Your task to perform on an android device: Search for flights from Helsinki to Tokyo Image 0: 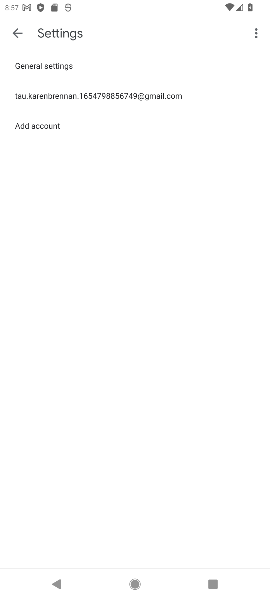
Step 0: press home button
Your task to perform on an android device: Search for flights from Helsinki to Tokyo Image 1: 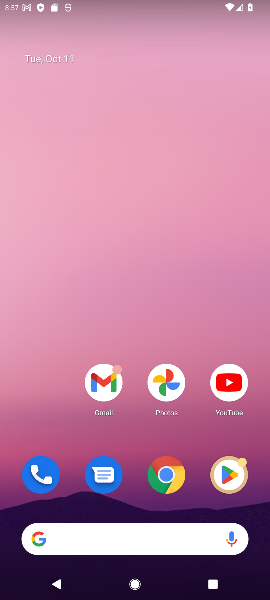
Step 1: click (174, 490)
Your task to perform on an android device: Search for flights from Helsinki to Tokyo Image 2: 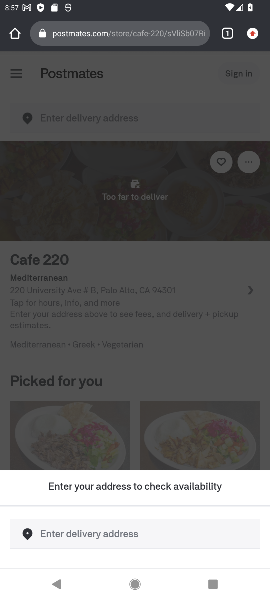
Step 2: click (123, 27)
Your task to perform on an android device: Search for flights from Helsinki to Tokyo Image 3: 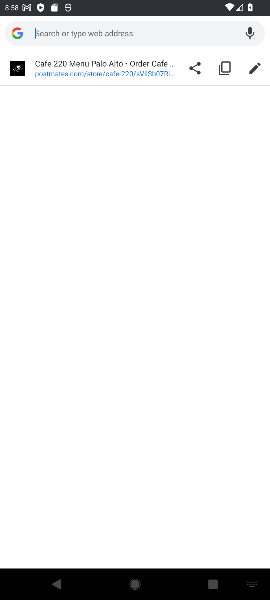
Step 3: type "flights from Helsinki to Tokyo"
Your task to perform on an android device: Search for flights from Helsinki to Tokyo Image 4: 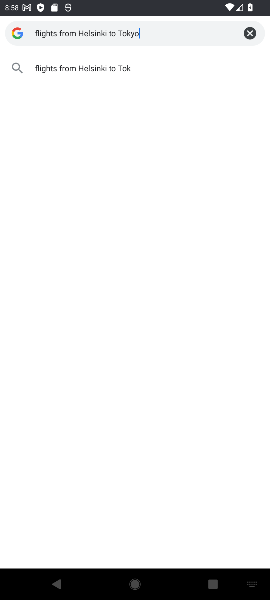
Step 4: type ""
Your task to perform on an android device: Search for flights from Helsinki to Tokyo Image 5: 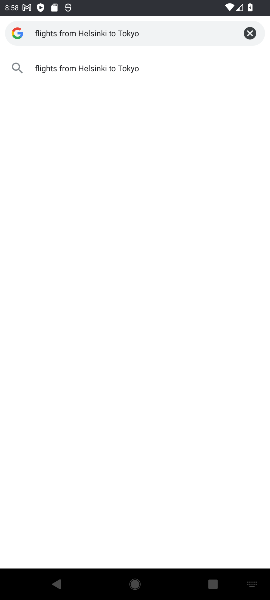
Step 5: press enter
Your task to perform on an android device: Search for flights from Helsinki to Tokyo Image 6: 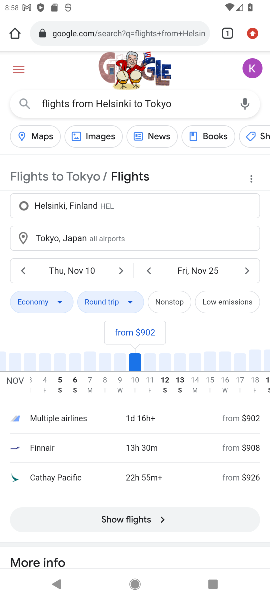
Step 6: click (122, 511)
Your task to perform on an android device: Search for flights from Helsinki to Tokyo Image 7: 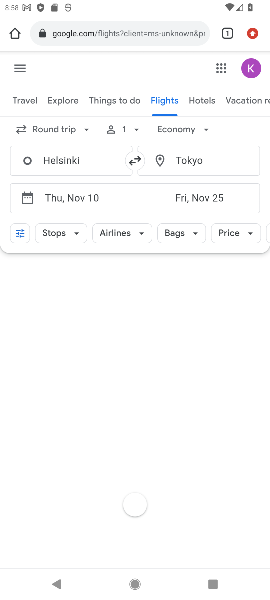
Step 7: drag from (122, 510) to (144, 133)
Your task to perform on an android device: Search for flights from Helsinki to Tokyo Image 8: 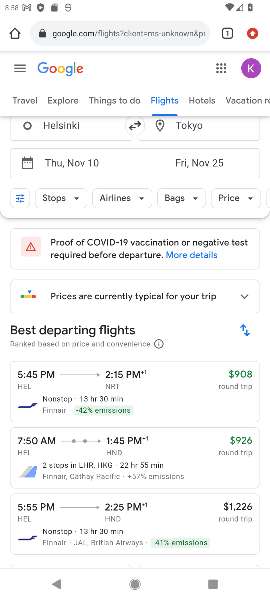
Step 8: drag from (152, 395) to (200, 122)
Your task to perform on an android device: Search for flights from Helsinki to Tokyo Image 9: 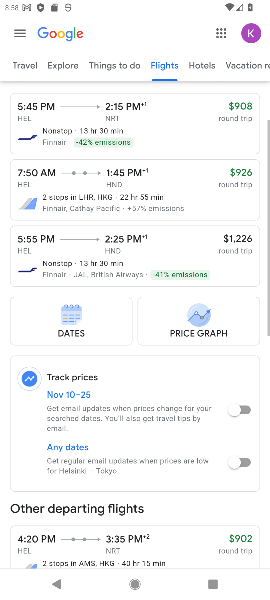
Step 9: drag from (165, 416) to (199, 138)
Your task to perform on an android device: Search for flights from Helsinki to Tokyo Image 10: 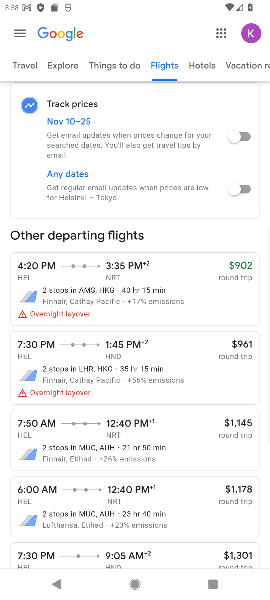
Step 10: drag from (180, 430) to (181, 107)
Your task to perform on an android device: Search for flights from Helsinki to Tokyo Image 11: 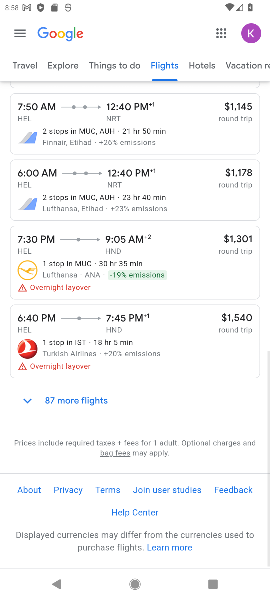
Step 11: drag from (149, 376) to (164, 135)
Your task to perform on an android device: Search for flights from Helsinki to Tokyo Image 12: 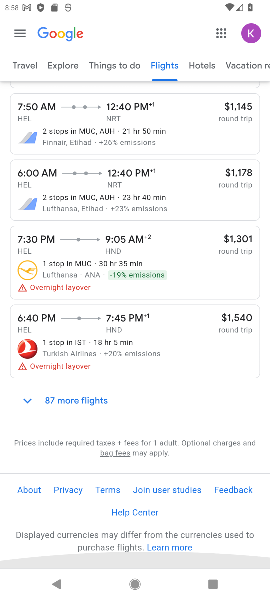
Step 12: drag from (142, 413) to (142, 249)
Your task to perform on an android device: Search for flights from Helsinki to Tokyo Image 13: 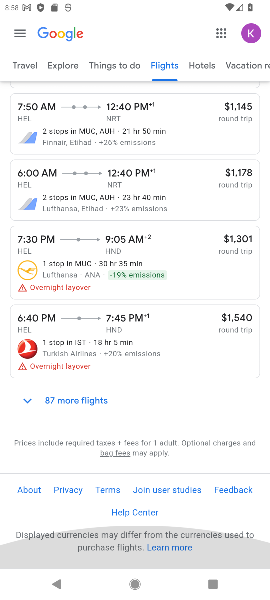
Step 13: drag from (145, 166) to (144, 419)
Your task to perform on an android device: Search for flights from Helsinki to Tokyo Image 14: 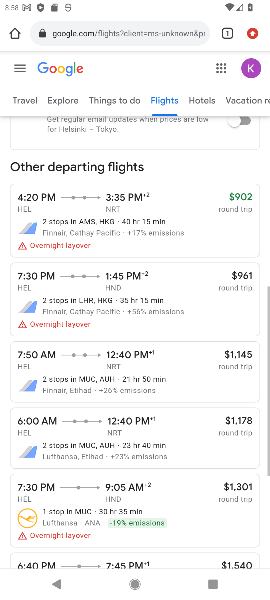
Step 14: drag from (180, 150) to (146, 367)
Your task to perform on an android device: Search for flights from Helsinki to Tokyo Image 15: 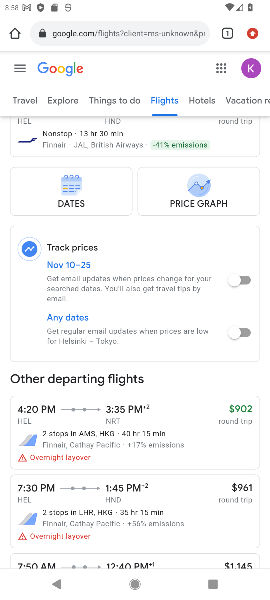
Step 15: drag from (149, 192) to (150, 418)
Your task to perform on an android device: Search for flights from Helsinki to Tokyo Image 16: 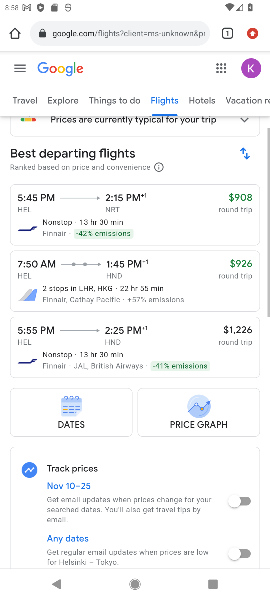
Step 16: drag from (147, 192) to (147, 395)
Your task to perform on an android device: Search for flights from Helsinki to Tokyo Image 17: 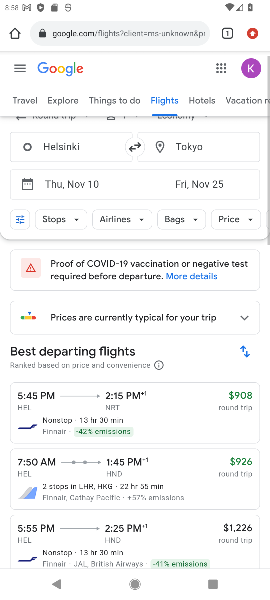
Step 17: drag from (147, 214) to (139, 422)
Your task to perform on an android device: Search for flights from Helsinki to Tokyo Image 18: 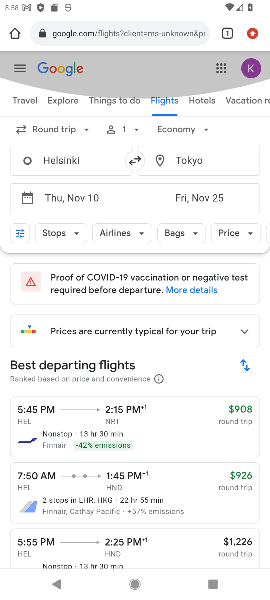
Step 18: drag from (152, 282) to (144, 377)
Your task to perform on an android device: Search for flights from Helsinki to Tokyo Image 19: 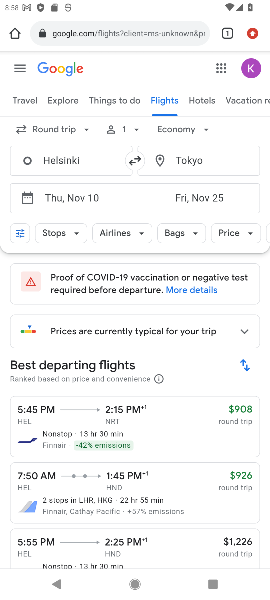
Step 19: drag from (151, 146) to (151, 337)
Your task to perform on an android device: Search for flights from Helsinki to Tokyo Image 20: 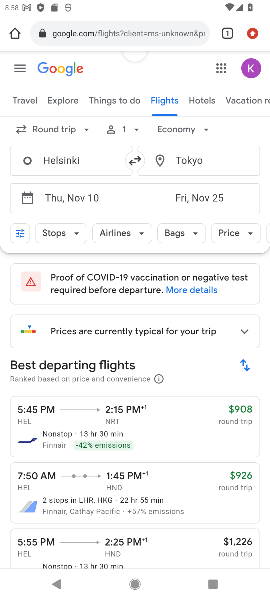
Step 20: drag from (157, 404) to (153, 150)
Your task to perform on an android device: Search for flights from Helsinki to Tokyo Image 21: 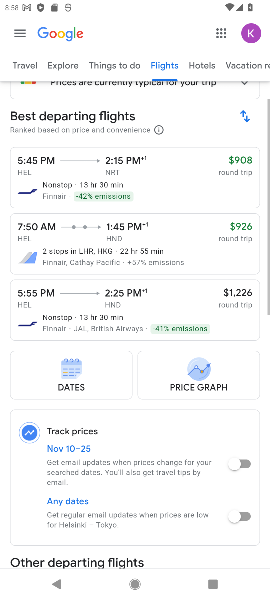
Step 21: drag from (130, 360) to (128, 132)
Your task to perform on an android device: Search for flights from Helsinki to Tokyo Image 22: 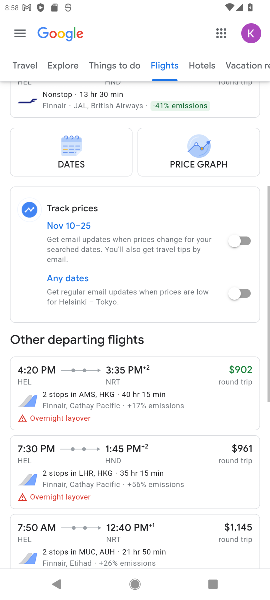
Step 22: drag from (135, 339) to (154, 93)
Your task to perform on an android device: Search for flights from Helsinki to Tokyo Image 23: 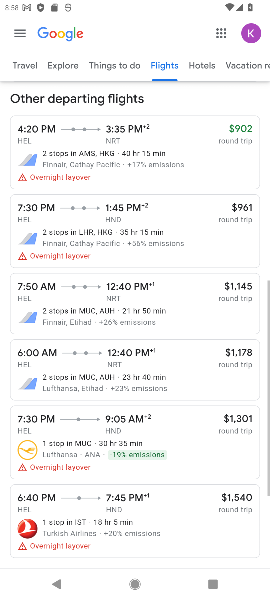
Step 23: drag from (153, 259) to (158, 127)
Your task to perform on an android device: Search for flights from Helsinki to Tokyo Image 24: 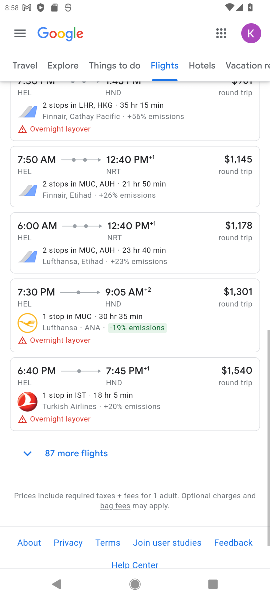
Step 24: drag from (135, 369) to (144, 129)
Your task to perform on an android device: Search for flights from Helsinki to Tokyo Image 25: 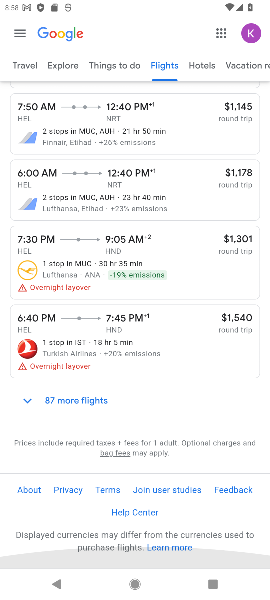
Step 25: drag from (147, 352) to (147, 148)
Your task to perform on an android device: Search for flights from Helsinki to Tokyo Image 26: 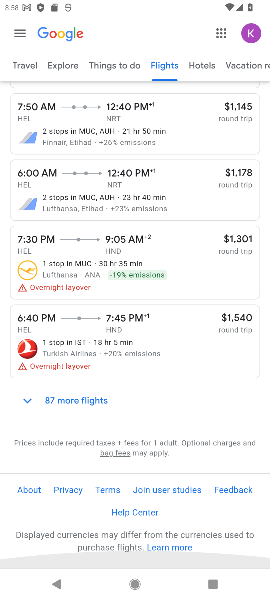
Step 26: click (74, 402)
Your task to perform on an android device: Search for flights from Helsinki to Tokyo Image 27: 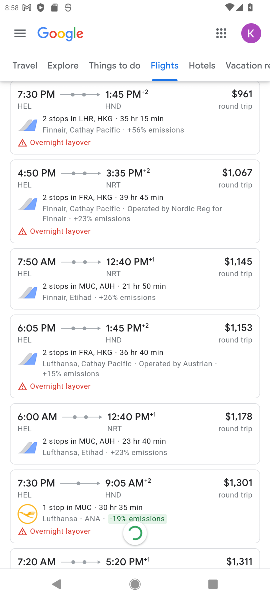
Step 27: drag from (144, 408) to (171, 103)
Your task to perform on an android device: Search for flights from Helsinki to Tokyo Image 28: 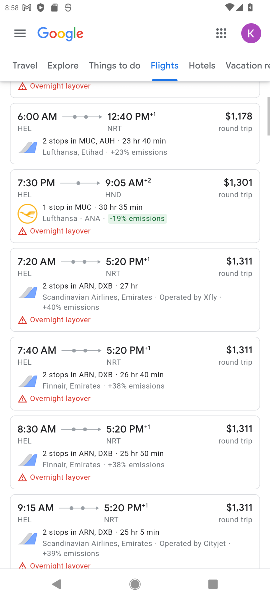
Step 28: drag from (190, 416) to (184, 132)
Your task to perform on an android device: Search for flights from Helsinki to Tokyo Image 29: 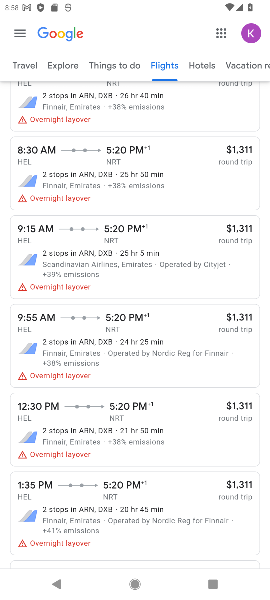
Step 29: drag from (197, 438) to (215, 108)
Your task to perform on an android device: Search for flights from Helsinki to Tokyo Image 30: 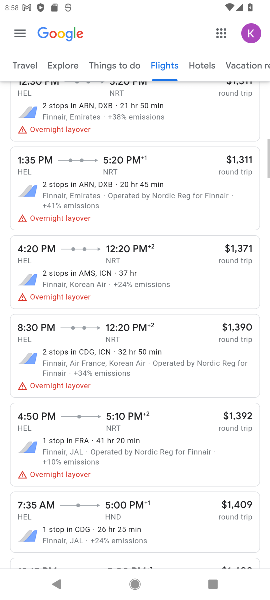
Step 30: click (186, 98)
Your task to perform on an android device: Search for flights from Helsinki to Tokyo Image 31: 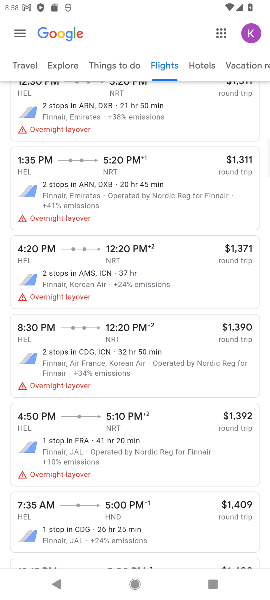
Step 31: drag from (177, 398) to (182, 86)
Your task to perform on an android device: Search for flights from Helsinki to Tokyo Image 32: 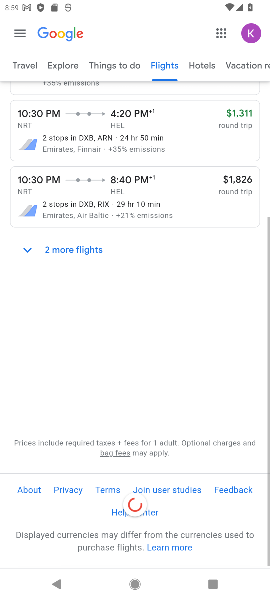
Step 32: drag from (150, 346) to (176, 192)
Your task to perform on an android device: Search for flights from Helsinki to Tokyo Image 33: 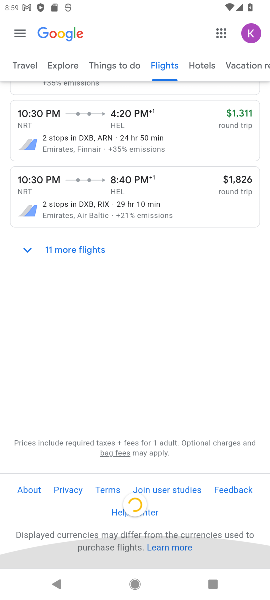
Step 33: drag from (185, 386) to (213, 173)
Your task to perform on an android device: Search for flights from Helsinki to Tokyo Image 34: 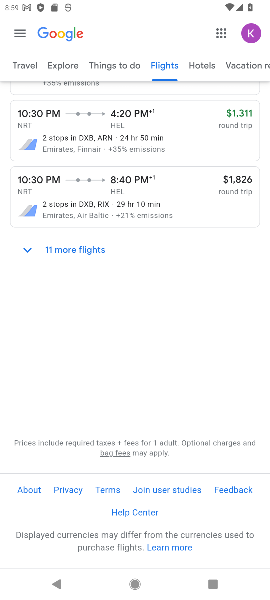
Step 34: drag from (212, 367) to (219, 229)
Your task to perform on an android device: Search for flights from Helsinki to Tokyo Image 35: 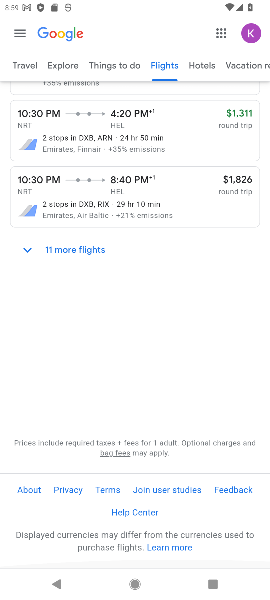
Step 35: drag from (224, 379) to (222, 236)
Your task to perform on an android device: Search for flights from Helsinki to Tokyo Image 36: 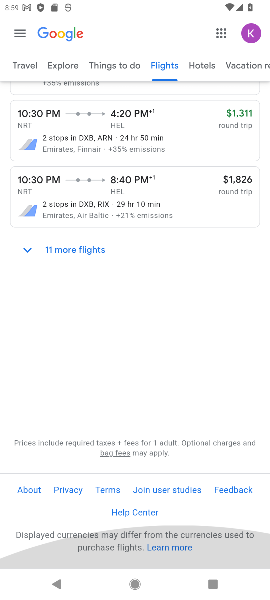
Step 36: drag from (196, 159) to (192, 392)
Your task to perform on an android device: Search for flights from Helsinki to Tokyo Image 37: 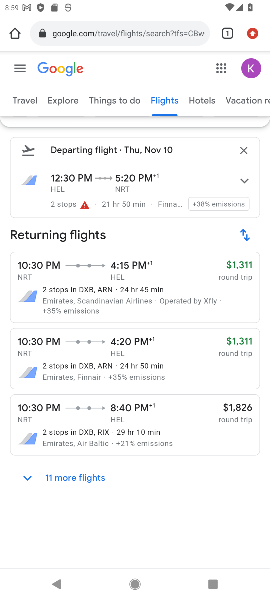
Step 37: drag from (197, 192) to (198, 427)
Your task to perform on an android device: Search for flights from Helsinki to Tokyo Image 38: 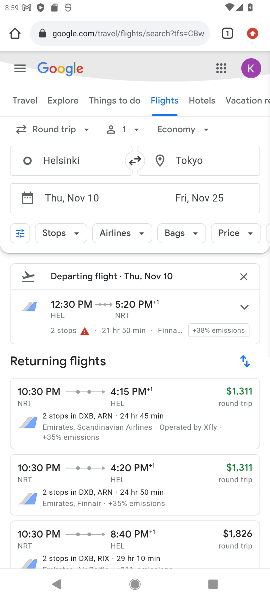
Step 38: drag from (182, 206) to (186, 432)
Your task to perform on an android device: Search for flights from Helsinki to Tokyo Image 39: 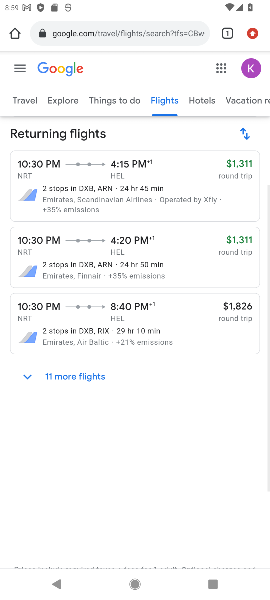
Step 39: drag from (0, 395) to (27, 234)
Your task to perform on an android device: Search for flights from Helsinki to Tokyo Image 40: 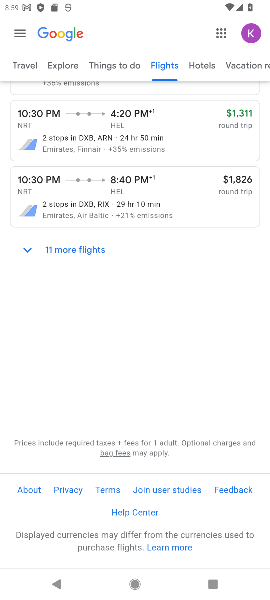
Step 40: drag from (37, 373) to (73, 235)
Your task to perform on an android device: Search for flights from Helsinki to Tokyo Image 41: 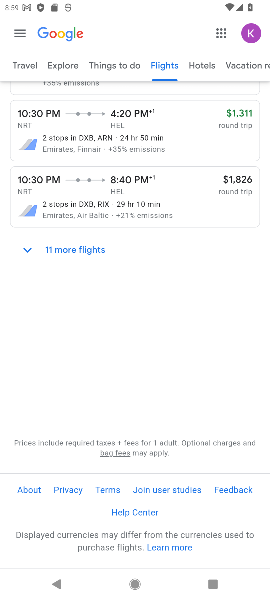
Step 41: drag from (119, 408) to (133, 245)
Your task to perform on an android device: Search for flights from Helsinki to Tokyo Image 42: 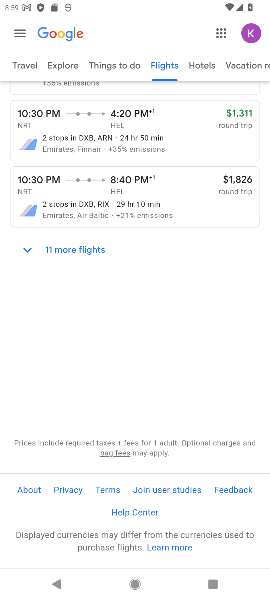
Step 42: drag from (151, 213) to (162, 476)
Your task to perform on an android device: Search for flights from Helsinki to Tokyo Image 43: 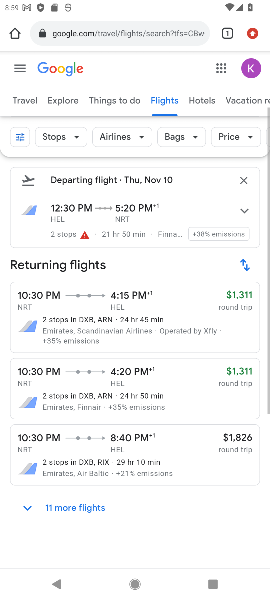
Step 43: drag from (134, 275) to (146, 455)
Your task to perform on an android device: Search for flights from Helsinki to Tokyo Image 44: 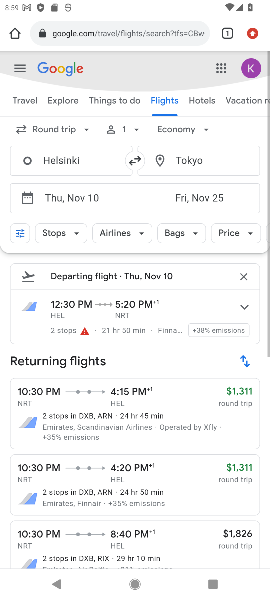
Step 44: drag from (137, 325) to (131, 472)
Your task to perform on an android device: Search for flights from Helsinki to Tokyo Image 45: 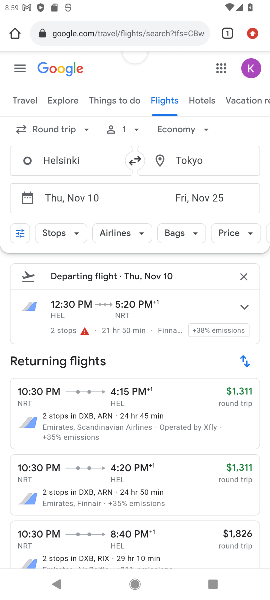
Step 45: drag from (131, 237) to (137, 420)
Your task to perform on an android device: Search for flights from Helsinki to Tokyo Image 46: 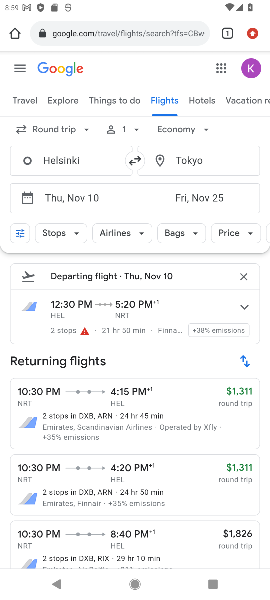
Step 46: drag from (165, 101) to (138, 317)
Your task to perform on an android device: Search for flights from Helsinki to Tokyo Image 47: 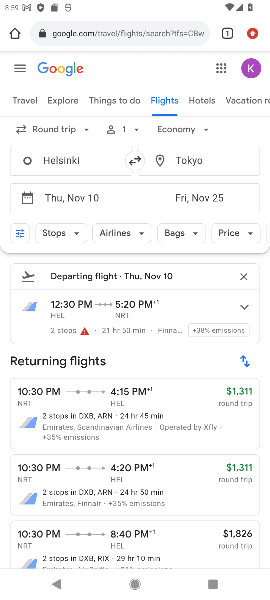
Step 47: drag from (199, 484) to (231, 126)
Your task to perform on an android device: Search for flights from Helsinki to Tokyo Image 48: 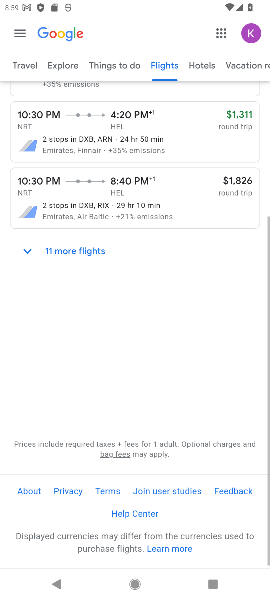
Step 48: drag from (195, 443) to (221, 144)
Your task to perform on an android device: Search for flights from Helsinki to Tokyo Image 49: 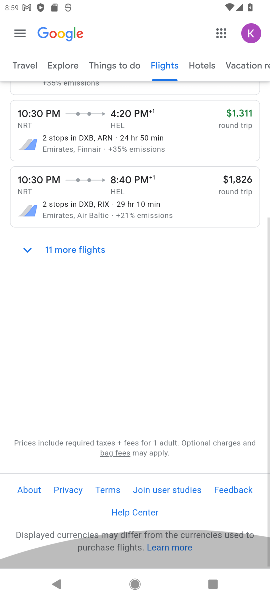
Step 49: drag from (182, 434) to (208, 149)
Your task to perform on an android device: Search for flights from Helsinki to Tokyo Image 50: 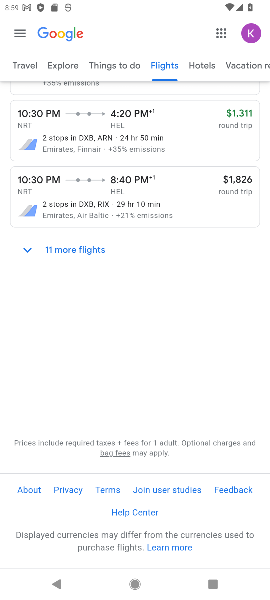
Step 50: drag from (197, 102) to (170, 432)
Your task to perform on an android device: Search for flights from Helsinki to Tokyo Image 51: 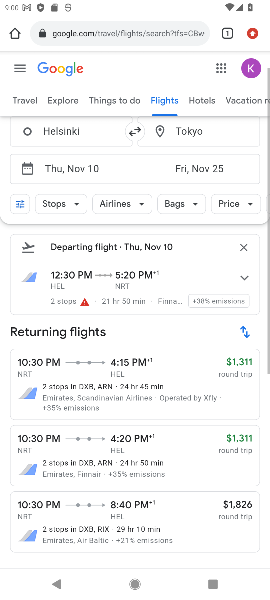
Step 51: drag from (168, 198) to (139, 445)
Your task to perform on an android device: Search for flights from Helsinki to Tokyo Image 52: 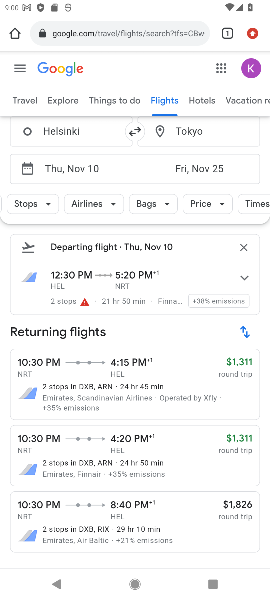
Step 52: drag from (148, 175) to (115, 456)
Your task to perform on an android device: Search for flights from Helsinki to Tokyo Image 53: 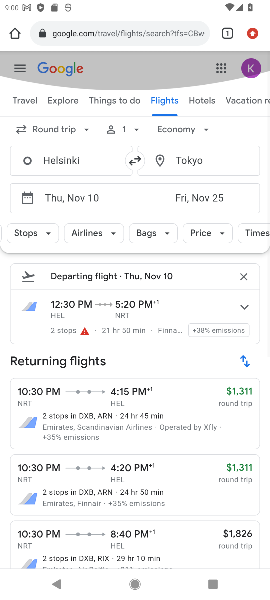
Step 53: drag from (118, 411) to (124, 467)
Your task to perform on an android device: Search for flights from Helsinki to Tokyo Image 54: 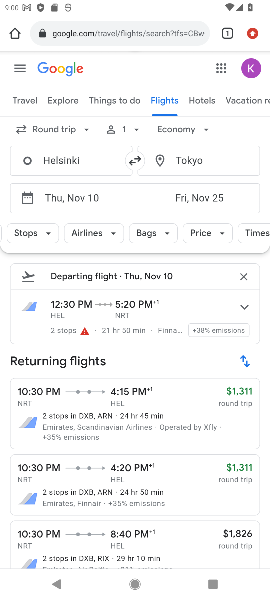
Step 54: drag from (120, 209) to (114, 430)
Your task to perform on an android device: Search for flights from Helsinki to Tokyo Image 55: 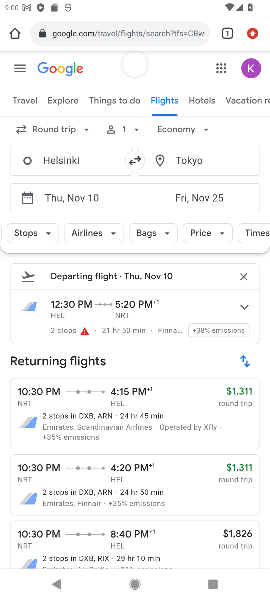
Step 55: drag from (136, 133) to (122, 335)
Your task to perform on an android device: Search for flights from Helsinki to Tokyo Image 56: 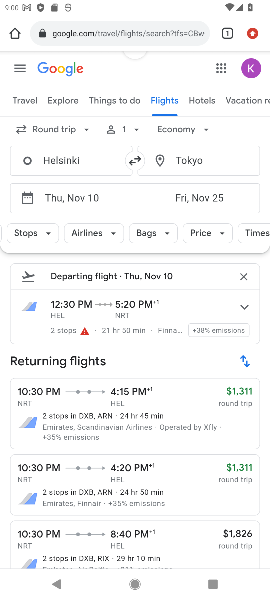
Step 56: drag from (131, 175) to (134, 420)
Your task to perform on an android device: Search for flights from Helsinki to Tokyo Image 57: 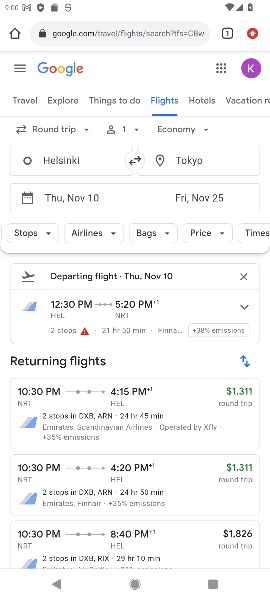
Step 57: drag from (177, 475) to (181, 123)
Your task to perform on an android device: Search for flights from Helsinki to Tokyo Image 58: 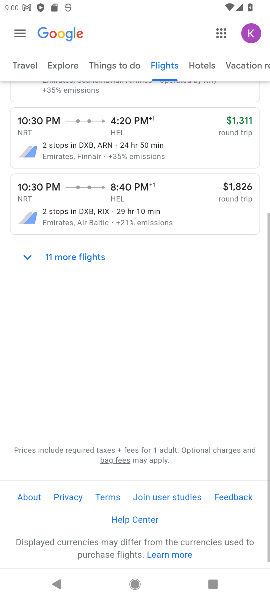
Step 58: drag from (169, 395) to (184, 286)
Your task to perform on an android device: Search for flights from Helsinki to Tokyo Image 59: 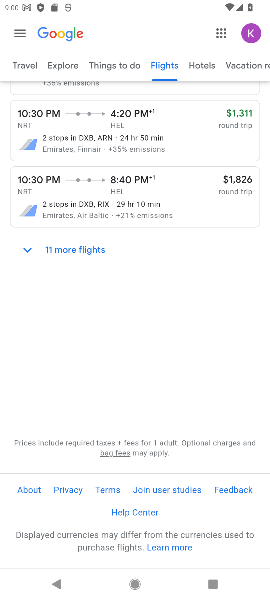
Step 59: drag from (239, 469) to (242, 327)
Your task to perform on an android device: Search for flights from Helsinki to Tokyo Image 60: 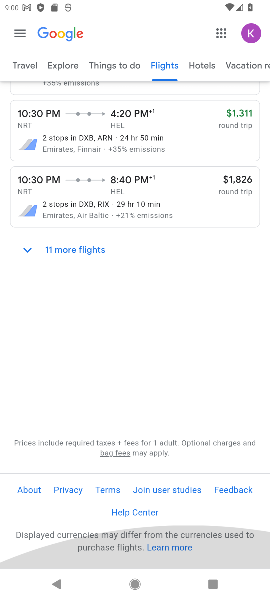
Step 60: drag from (208, 253) to (166, 414)
Your task to perform on an android device: Search for flights from Helsinki to Tokyo Image 61: 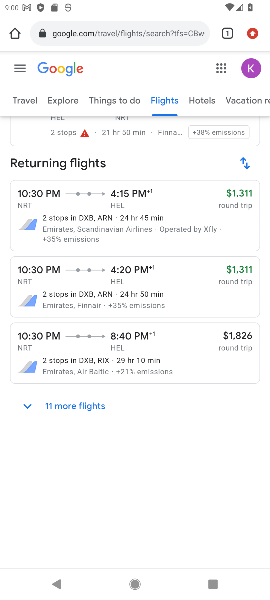
Step 61: click (55, 410)
Your task to perform on an android device: Search for flights from Helsinki to Tokyo Image 62: 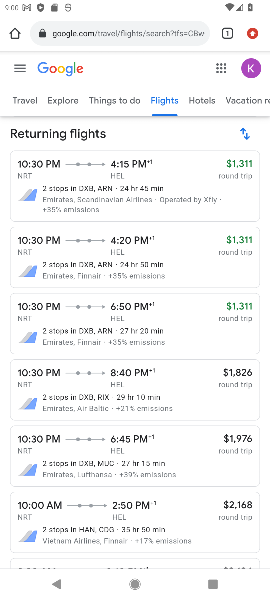
Step 62: drag from (71, 498) to (146, 154)
Your task to perform on an android device: Search for flights from Helsinki to Tokyo Image 63: 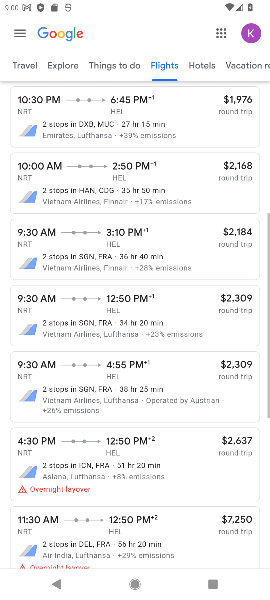
Step 63: drag from (148, 420) to (191, 143)
Your task to perform on an android device: Search for flights from Helsinki to Tokyo Image 64: 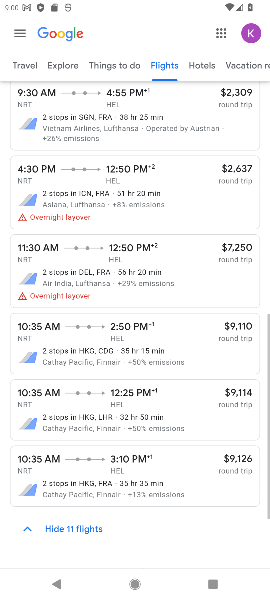
Step 64: drag from (151, 440) to (168, 152)
Your task to perform on an android device: Search for flights from Helsinki to Tokyo Image 65: 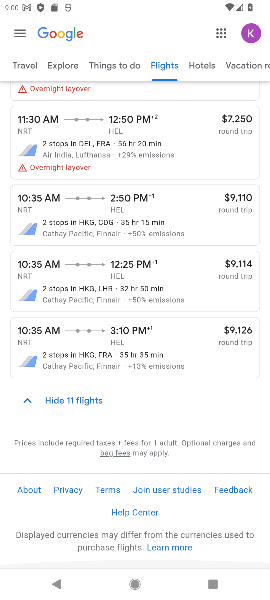
Step 65: click (184, 139)
Your task to perform on an android device: Search for flights from Helsinki to Tokyo Image 66: 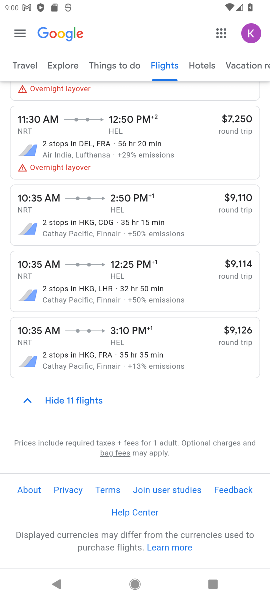
Step 66: drag from (147, 409) to (178, 218)
Your task to perform on an android device: Search for flights from Helsinki to Tokyo Image 67: 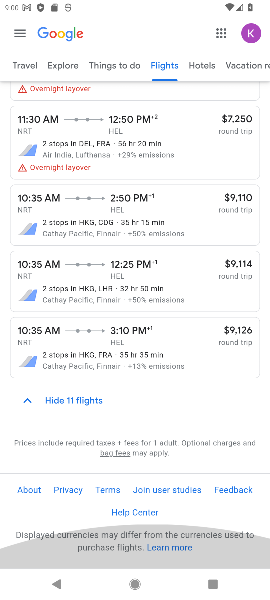
Step 67: drag from (182, 127) to (161, 437)
Your task to perform on an android device: Search for flights from Helsinki to Tokyo Image 68: 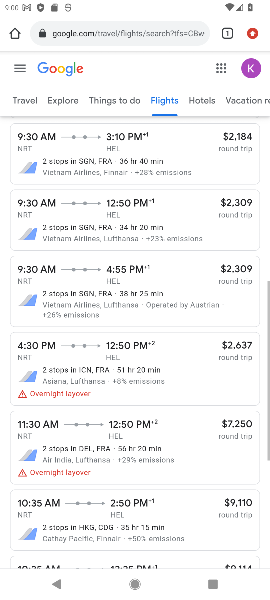
Step 68: drag from (160, 196) to (147, 429)
Your task to perform on an android device: Search for flights from Helsinki to Tokyo Image 69: 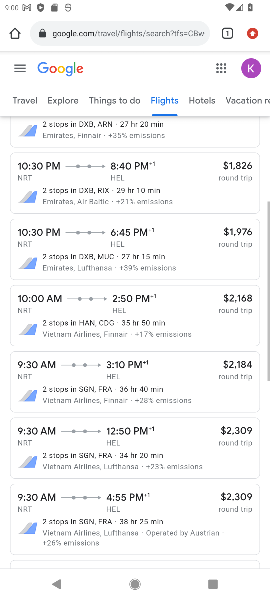
Step 69: drag from (170, 181) to (139, 424)
Your task to perform on an android device: Search for flights from Helsinki to Tokyo Image 70: 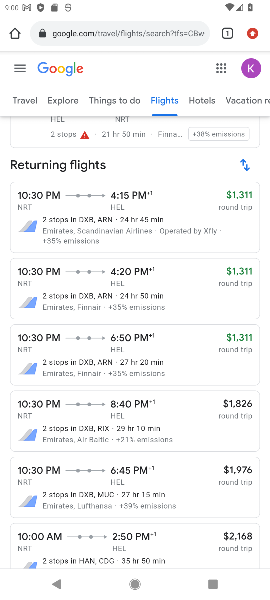
Step 70: drag from (170, 180) to (141, 404)
Your task to perform on an android device: Search for flights from Helsinki to Tokyo Image 71: 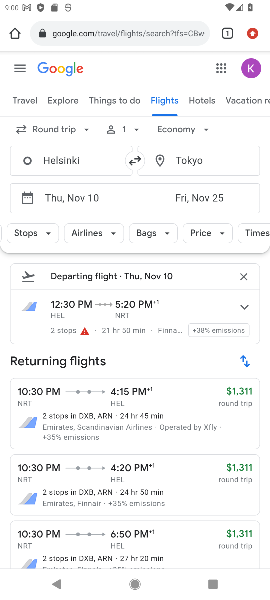
Step 71: click (106, 311)
Your task to perform on an android device: Search for flights from Helsinki to Tokyo Image 72: 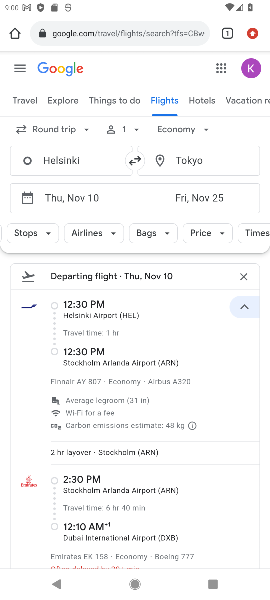
Step 72: drag from (131, 530) to (152, 326)
Your task to perform on an android device: Search for flights from Helsinki to Tokyo Image 73: 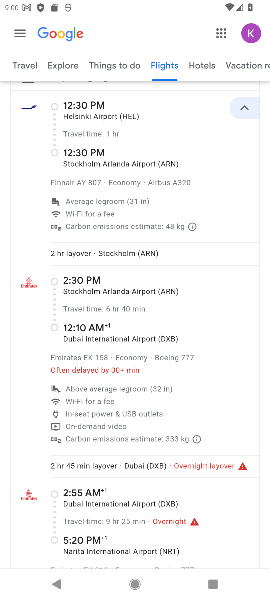
Step 73: drag from (119, 479) to (199, 89)
Your task to perform on an android device: Search for flights from Helsinki to Tokyo Image 74: 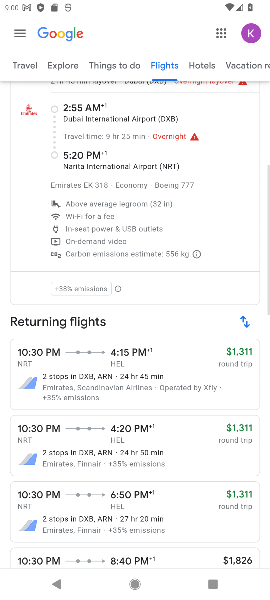
Step 74: drag from (190, 391) to (252, 54)
Your task to perform on an android device: Search for flights from Helsinki to Tokyo Image 75: 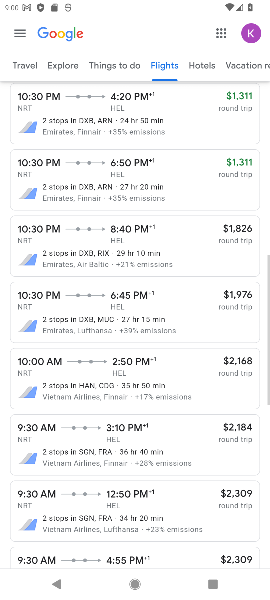
Step 75: drag from (204, 337) to (224, 135)
Your task to perform on an android device: Search for flights from Helsinki to Tokyo Image 76: 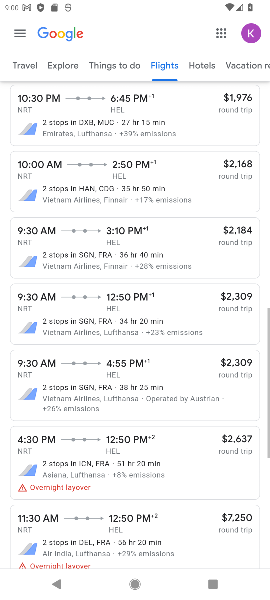
Step 76: drag from (179, 348) to (204, 146)
Your task to perform on an android device: Search for flights from Helsinki to Tokyo Image 77: 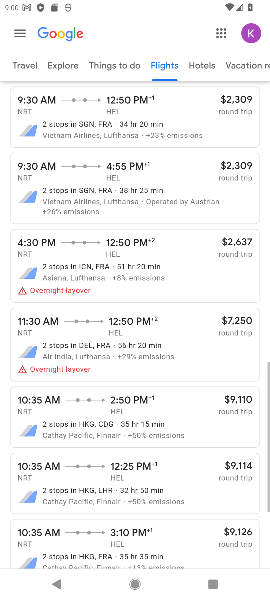
Step 77: drag from (168, 345) to (197, 158)
Your task to perform on an android device: Search for flights from Helsinki to Tokyo Image 78: 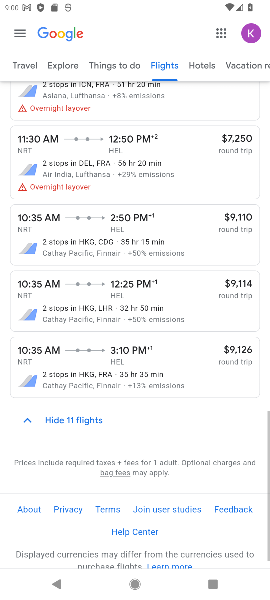
Step 78: drag from (171, 401) to (189, 166)
Your task to perform on an android device: Search for flights from Helsinki to Tokyo Image 79: 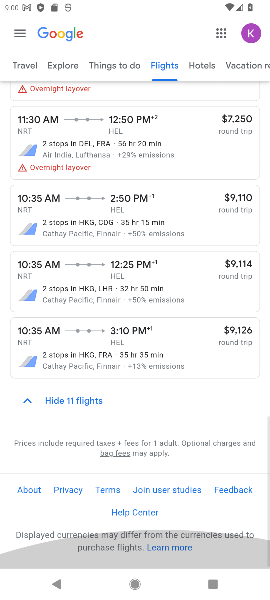
Step 79: drag from (148, 371) to (169, 239)
Your task to perform on an android device: Search for flights from Helsinki to Tokyo Image 80: 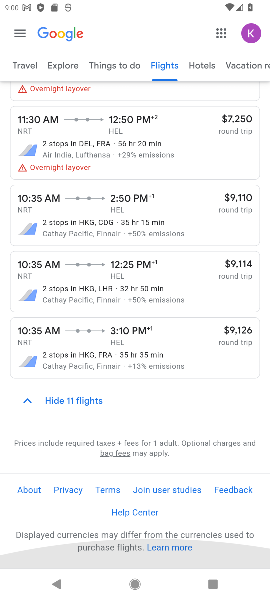
Step 80: drag from (171, 207) to (126, 556)
Your task to perform on an android device: Search for flights from Helsinki to Tokyo Image 81: 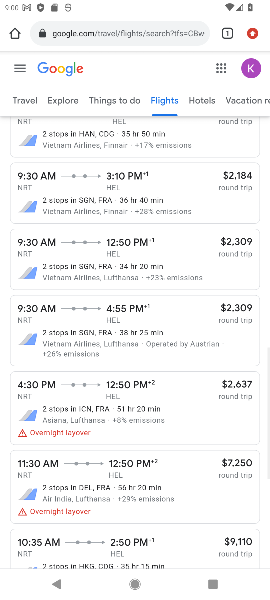
Step 81: drag from (144, 202) to (138, 527)
Your task to perform on an android device: Search for flights from Helsinki to Tokyo Image 82: 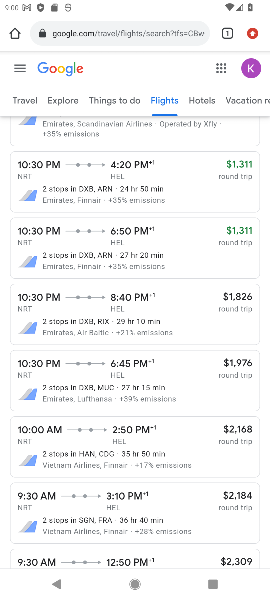
Step 82: drag from (174, 174) to (167, 531)
Your task to perform on an android device: Search for flights from Helsinki to Tokyo Image 83: 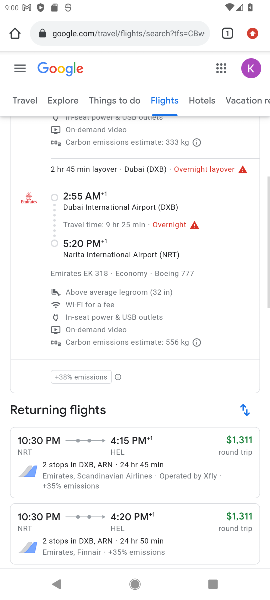
Step 83: drag from (134, 188) to (130, 518)
Your task to perform on an android device: Search for flights from Helsinki to Tokyo Image 84: 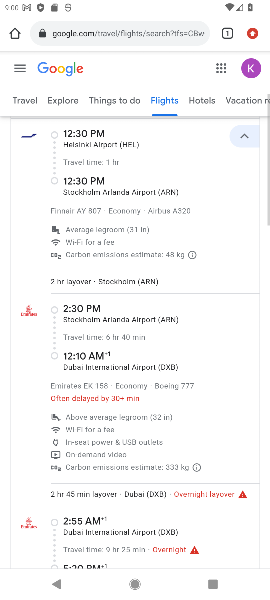
Step 84: drag from (138, 153) to (136, 481)
Your task to perform on an android device: Search for flights from Helsinki to Tokyo Image 85: 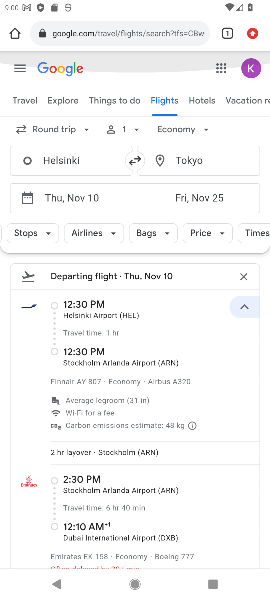
Step 85: drag from (152, 193) to (143, 459)
Your task to perform on an android device: Search for flights from Helsinki to Tokyo Image 86: 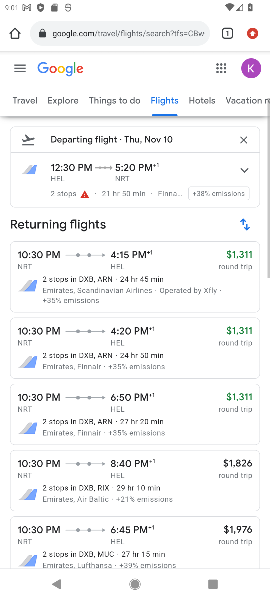
Step 86: drag from (143, 459) to (151, 313)
Your task to perform on an android device: Search for flights from Helsinki to Tokyo Image 87: 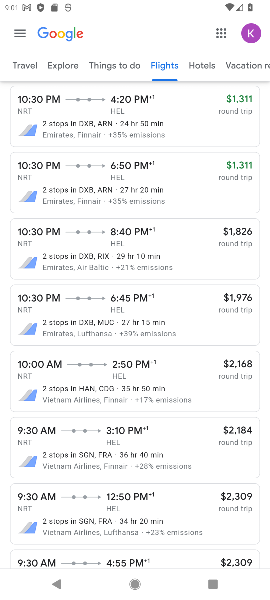
Step 87: click (131, 238)
Your task to perform on an android device: Search for flights from Helsinki to Tokyo Image 88: 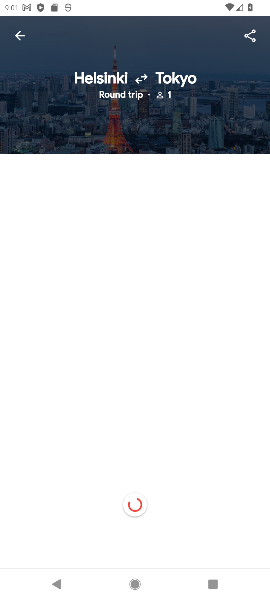
Step 88: task complete